Your task to perform on an android device: Open calendar and show me the third week of next month Image 0: 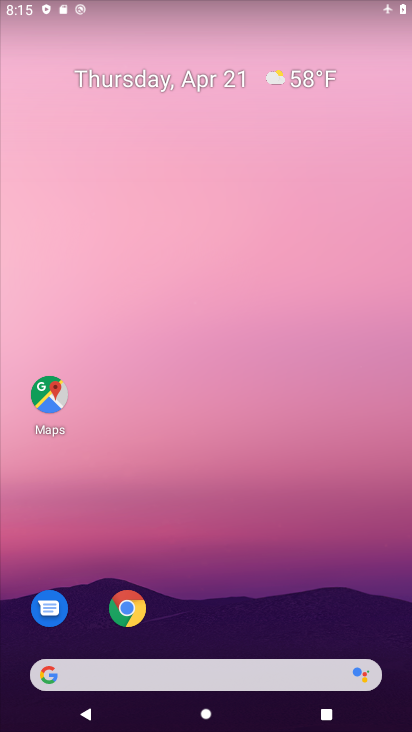
Step 0: drag from (279, 559) to (290, 115)
Your task to perform on an android device: Open calendar and show me the third week of next month Image 1: 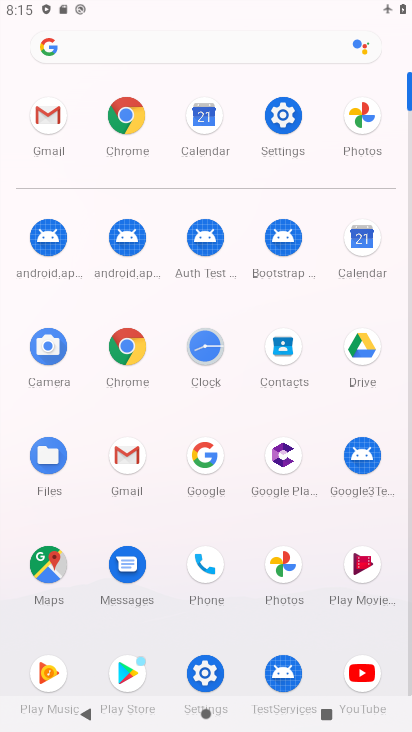
Step 1: click (358, 241)
Your task to perform on an android device: Open calendar and show me the third week of next month Image 2: 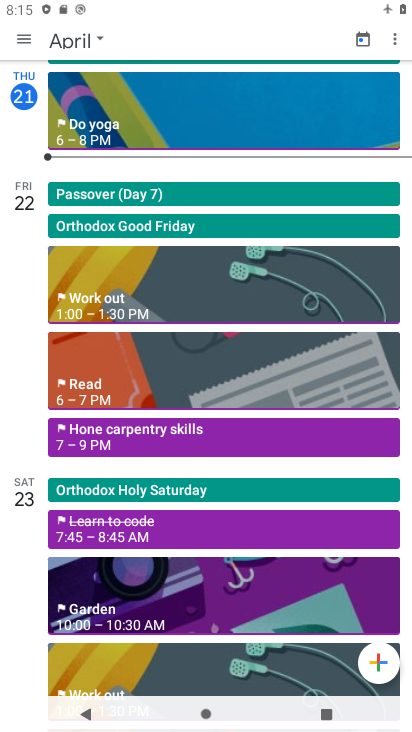
Step 2: click (24, 37)
Your task to perform on an android device: Open calendar and show me the third week of next month Image 3: 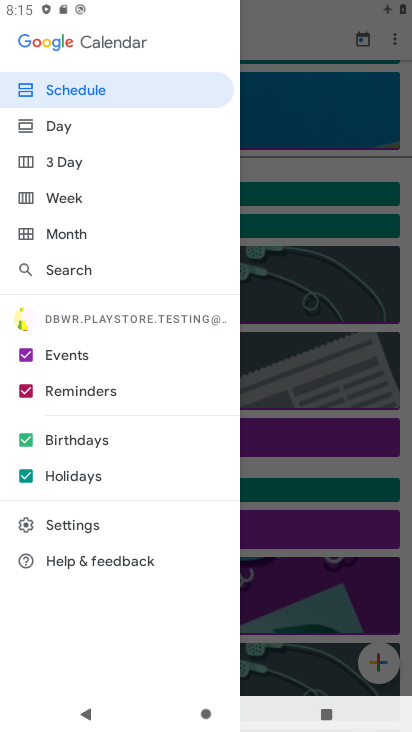
Step 3: click (56, 190)
Your task to perform on an android device: Open calendar and show me the third week of next month Image 4: 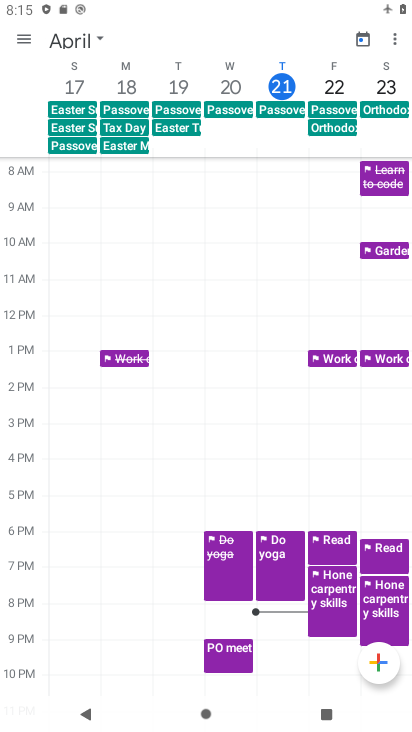
Step 4: task complete